Your task to perform on an android device: visit the assistant section in the google photos Image 0: 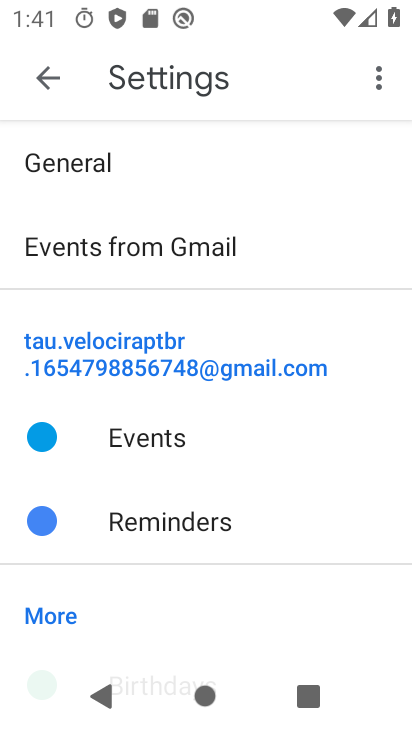
Step 0: press back button
Your task to perform on an android device: visit the assistant section in the google photos Image 1: 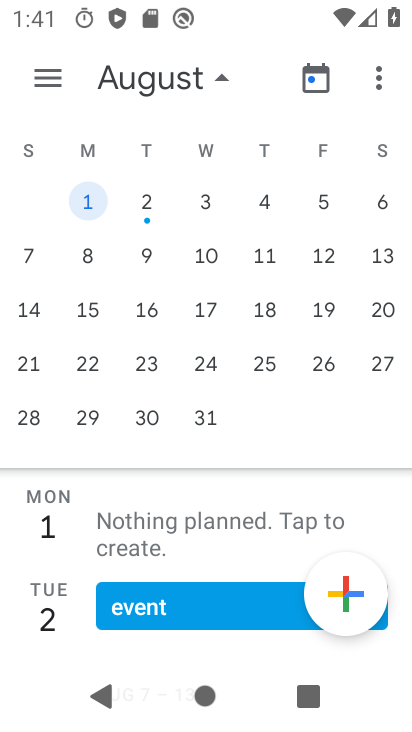
Step 1: press back button
Your task to perform on an android device: visit the assistant section in the google photos Image 2: 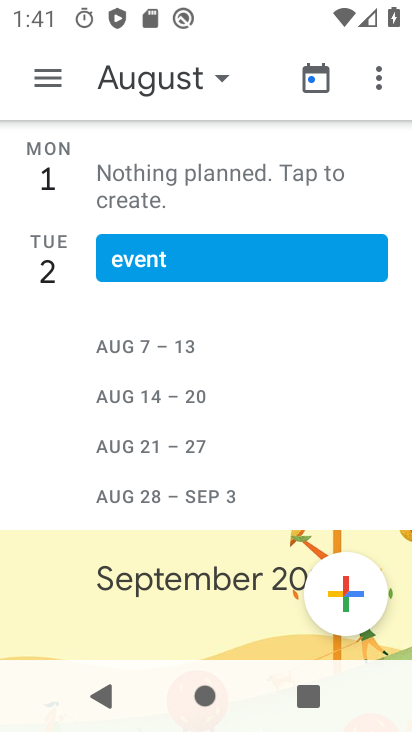
Step 2: press back button
Your task to perform on an android device: visit the assistant section in the google photos Image 3: 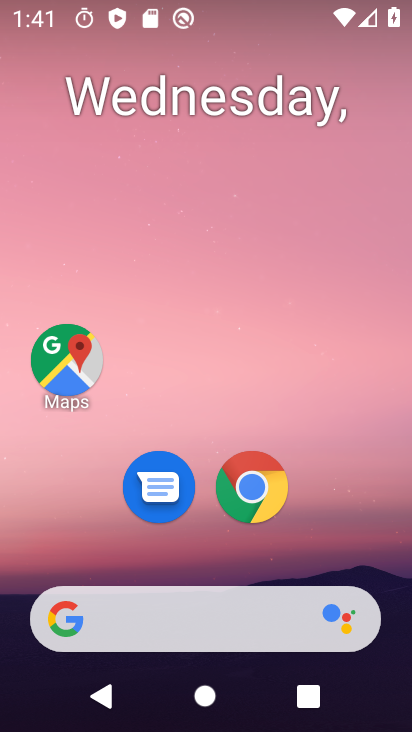
Step 3: drag from (144, 589) to (280, 86)
Your task to perform on an android device: visit the assistant section in the google photos Image 4: 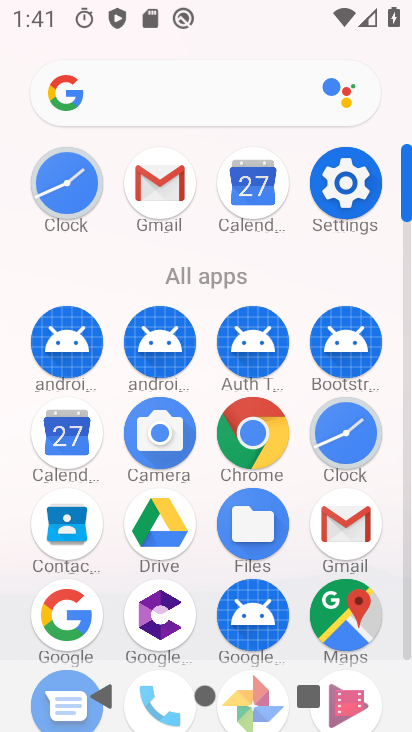
Step 4: drag from (263, 566) to (342, 145)
Your task to perform on an android device: visit the assistant section in the google photos Image 5: 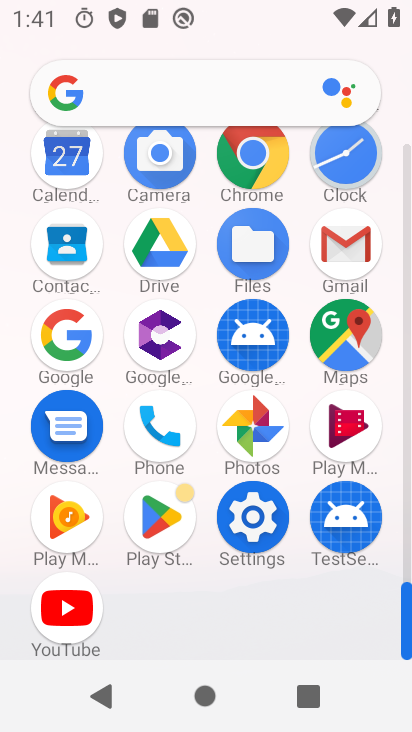
Step 5: click (261, 441)
Your task to perform on an android device: visit the assistant section in the google photos Image 6: 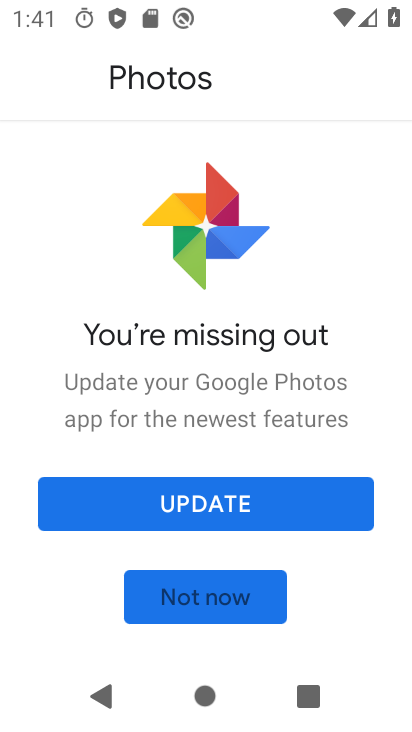
Step 6: click (249, 608)
Your task to perform on an android device: visit the assistant section in the google photos Image 7: 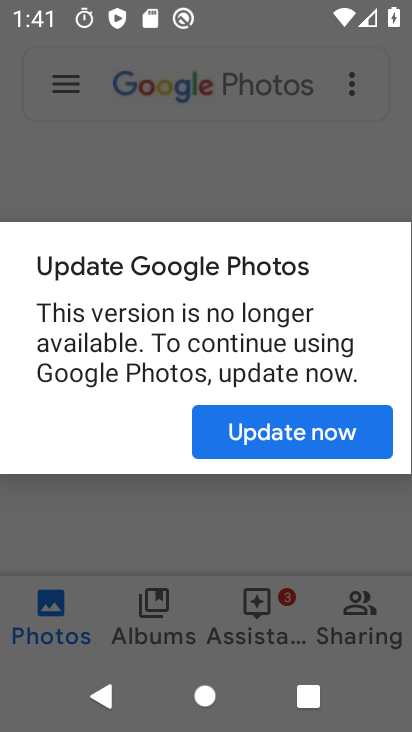
Step 7: click (251, 617)
Your task to perform on an android device: visit the assistant section in the google photos Image 8: 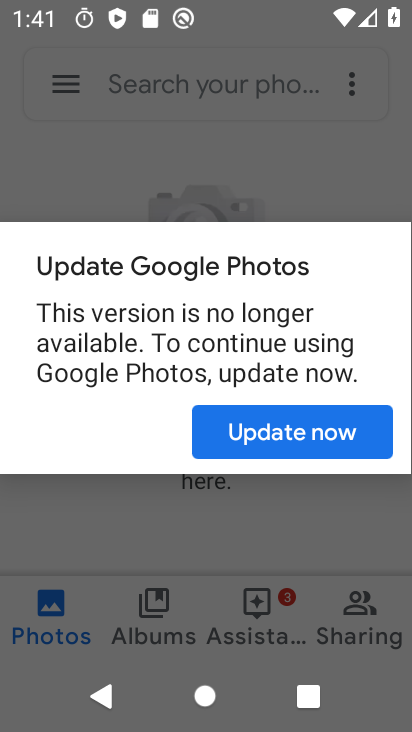
Step 8: click (280, 445)
Your task to perform on an android device: visit the assistant section in the google photos Image 9: 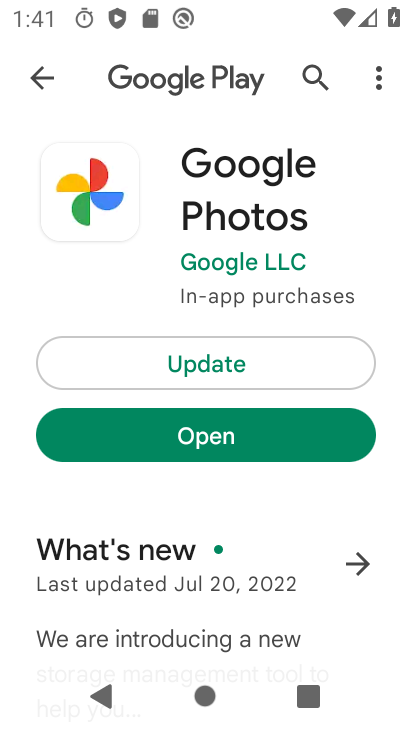
Step 9: click (151, 442)
Your task to perform on an android device: visit the assistant section in the google photos Image 10: 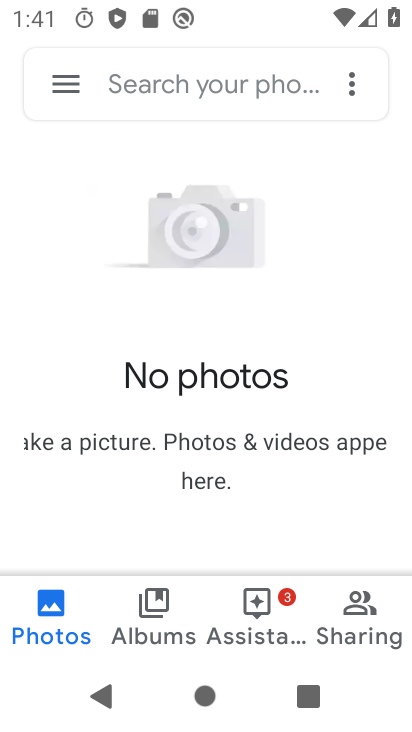
Step 10: click (249, 622)
Your task to perform on an android device: visit the assistant section in the google photos Image 11: 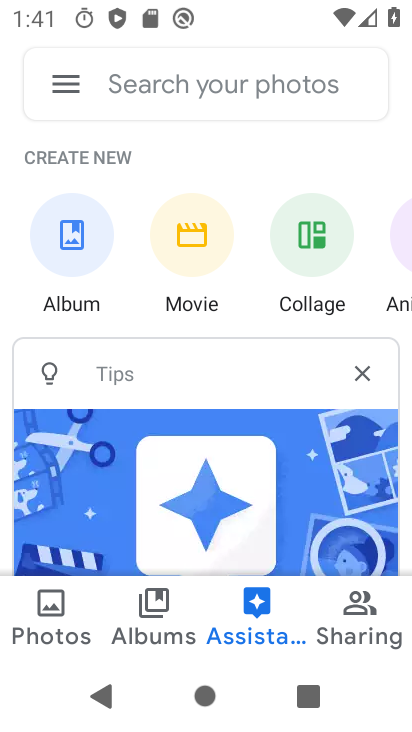
Step 11: task complete